Your task to perform on an android device: star an email in the gmail app Image 0: 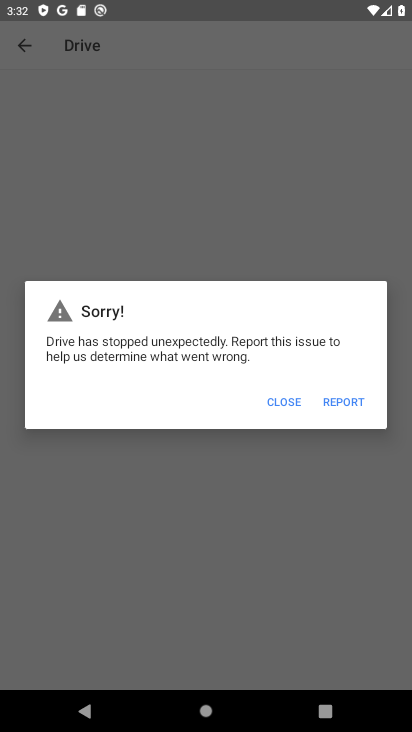
Step 0: press home button
Your task to perform on an android device: star an email in the gmail app Image 1: 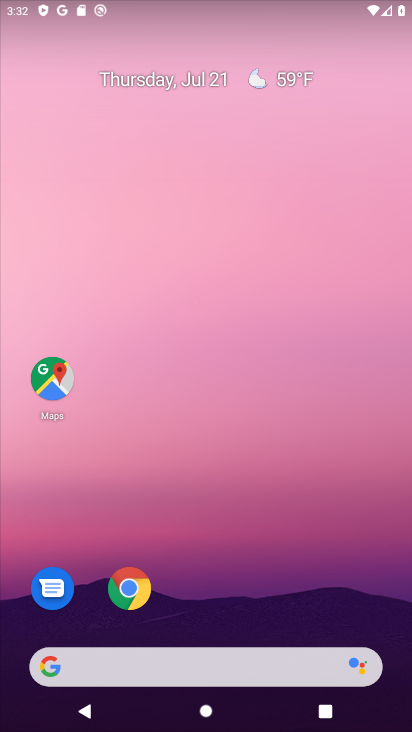
Step 1: drag from (232, 721) to (226, 129)
Your task to perform on an android device: star an email in the gmail app Image 2: 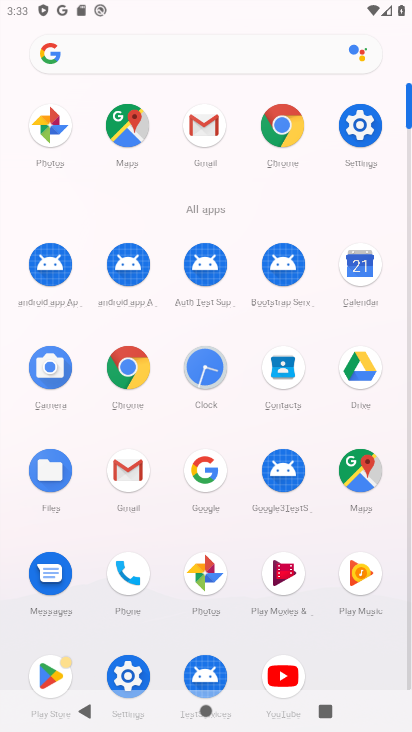
Step 2: click (126, 467)
Your task to perform on an android device: star an email in the gmail app Image 3: 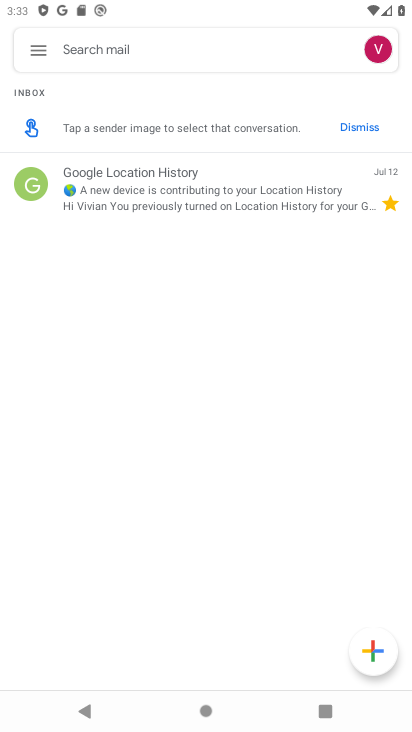
Step 3: task complete